Your task to perform on an android device: Open Chrome and go to the settings page Image 0: 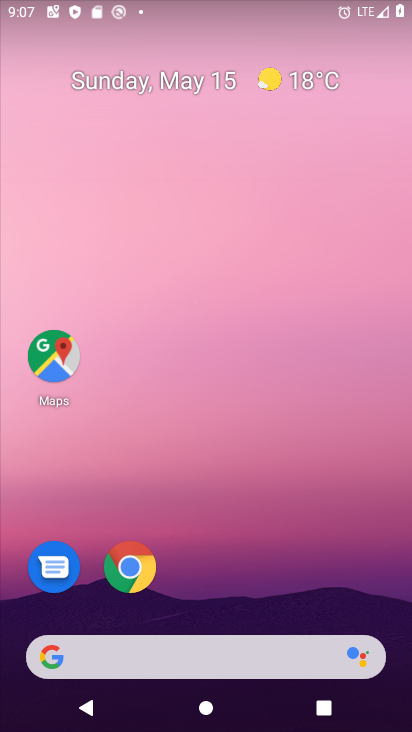
Step 0: click (133, 565)
Your task to perform on an android device: Open Chrome and go to the settings page Image 1: 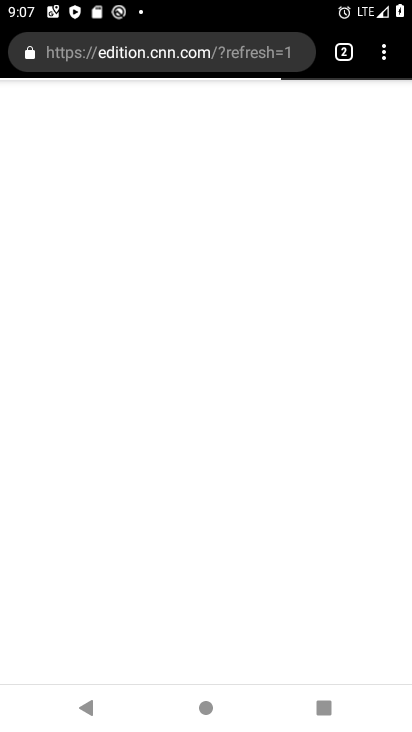
Step 1: click (384, 53)
Your task to perform on an android device: Open Chrome and go to the settings page Image 2: 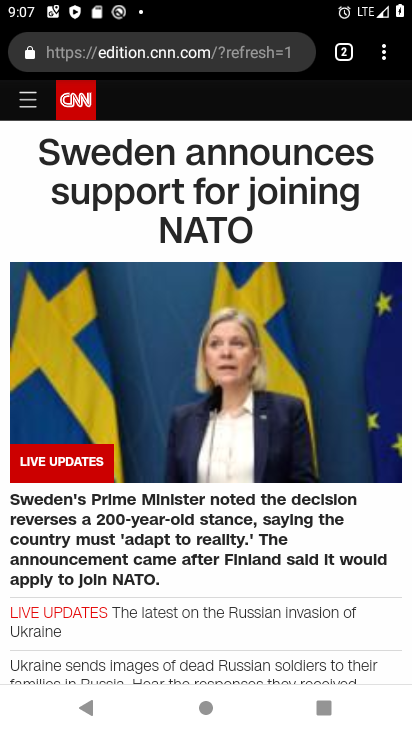
Step 2: click (385, 51)
Your task to perform on an android device: Open Chrome and go to the settings page Image 3: 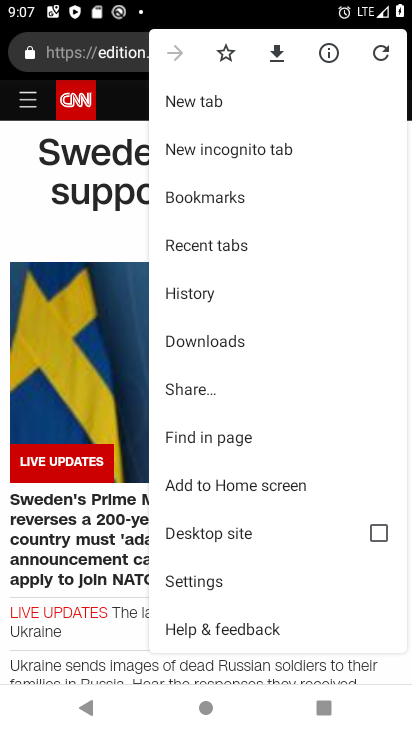
Step 3: click (230, 582)
Your task to perform on an android device: Open Chrome and go to the settings page Image 4: 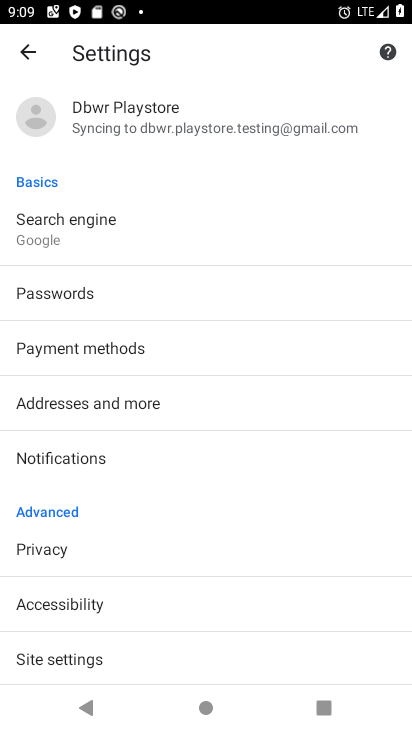
Step 4: task complete